Your task to perform on an android device: Find coffee shops on Maps Image 0: 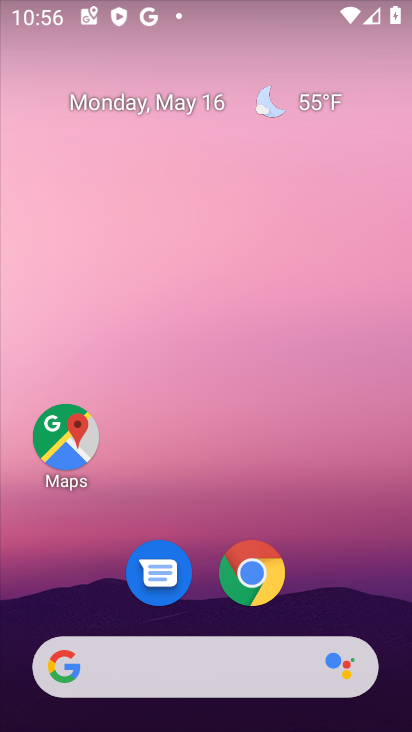
Step 0: click (77, 437)
Your task to perform on an android device: Find coffee shops on Maps Image 1: 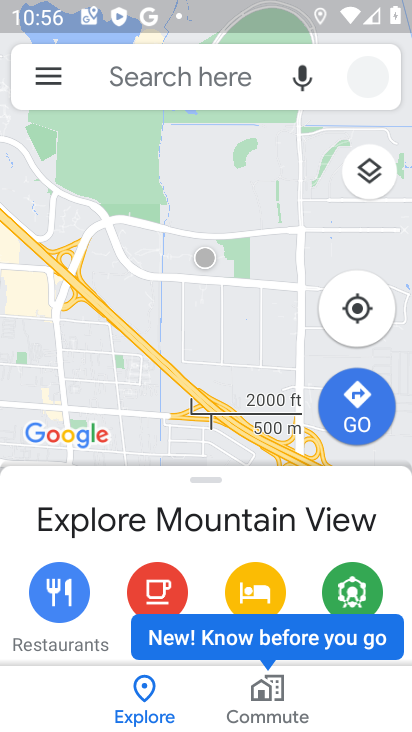
Step 1: click (179, 72)
Your task to perform on an android device: Find coffee shops on Maps Image 2: 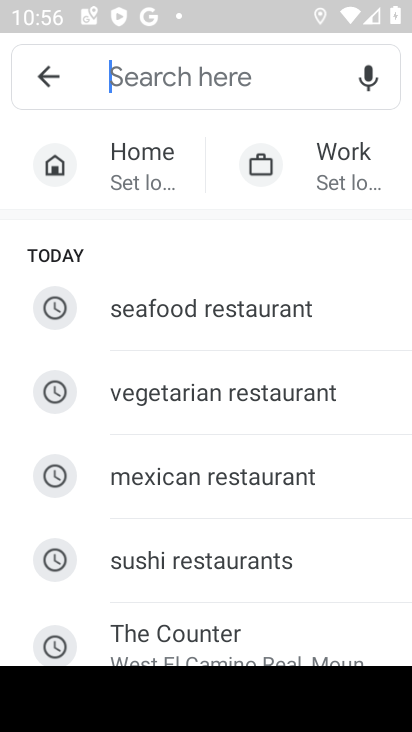
Step 2: drag from (235, 548) to (165, 145)
Your task to perform on an android device: Find coffee shops on Maps Image 3: 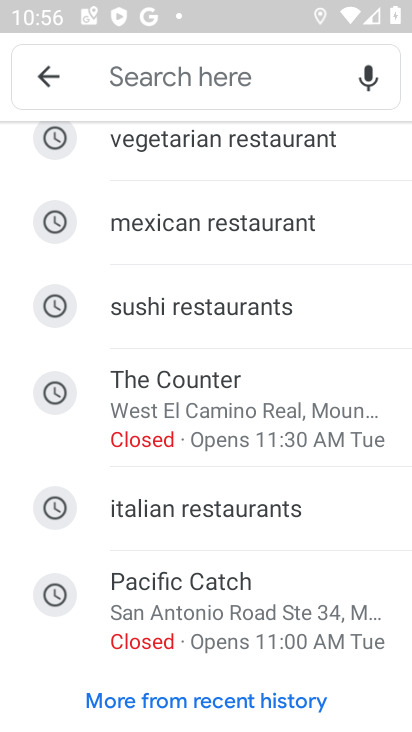
Step 3: click (154, 86)
Your task to perform on an android device: Find coffee shops on Maps Image 4: 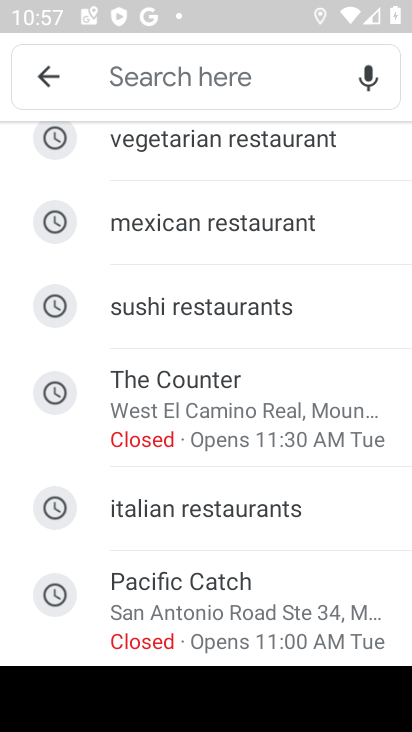
Step 4: type "coffee shops"
Your task to perform on an android device: Find coffee shops on Maps Image 5: 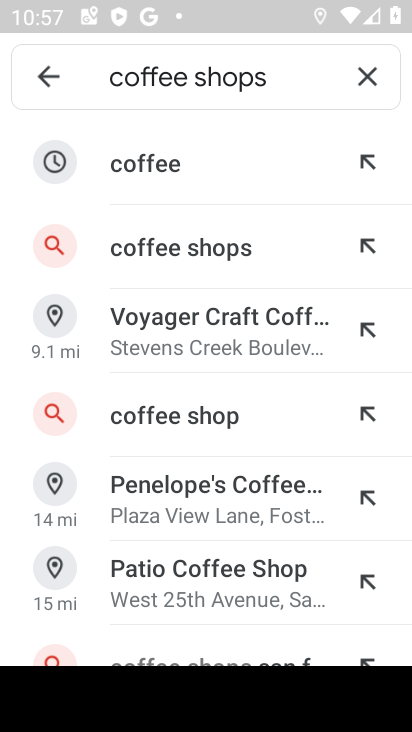
Step 5: click (226, 258)
Your task to perform on an android device: Find coffee shops on Maps Image 6: 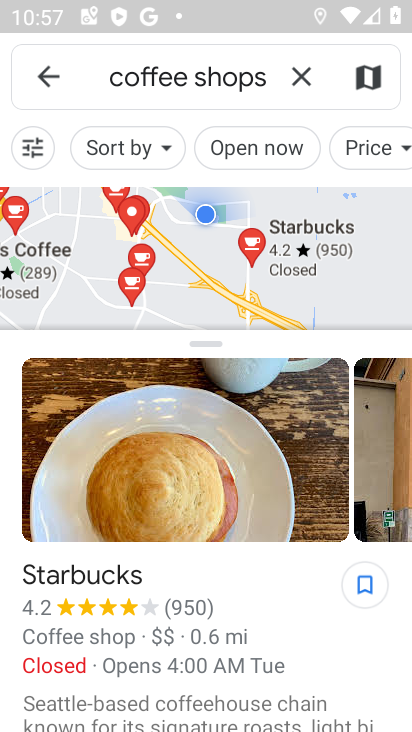
Step 6: task complete